Your task to perform on an android device: change the clock display to show seconds Image 0: 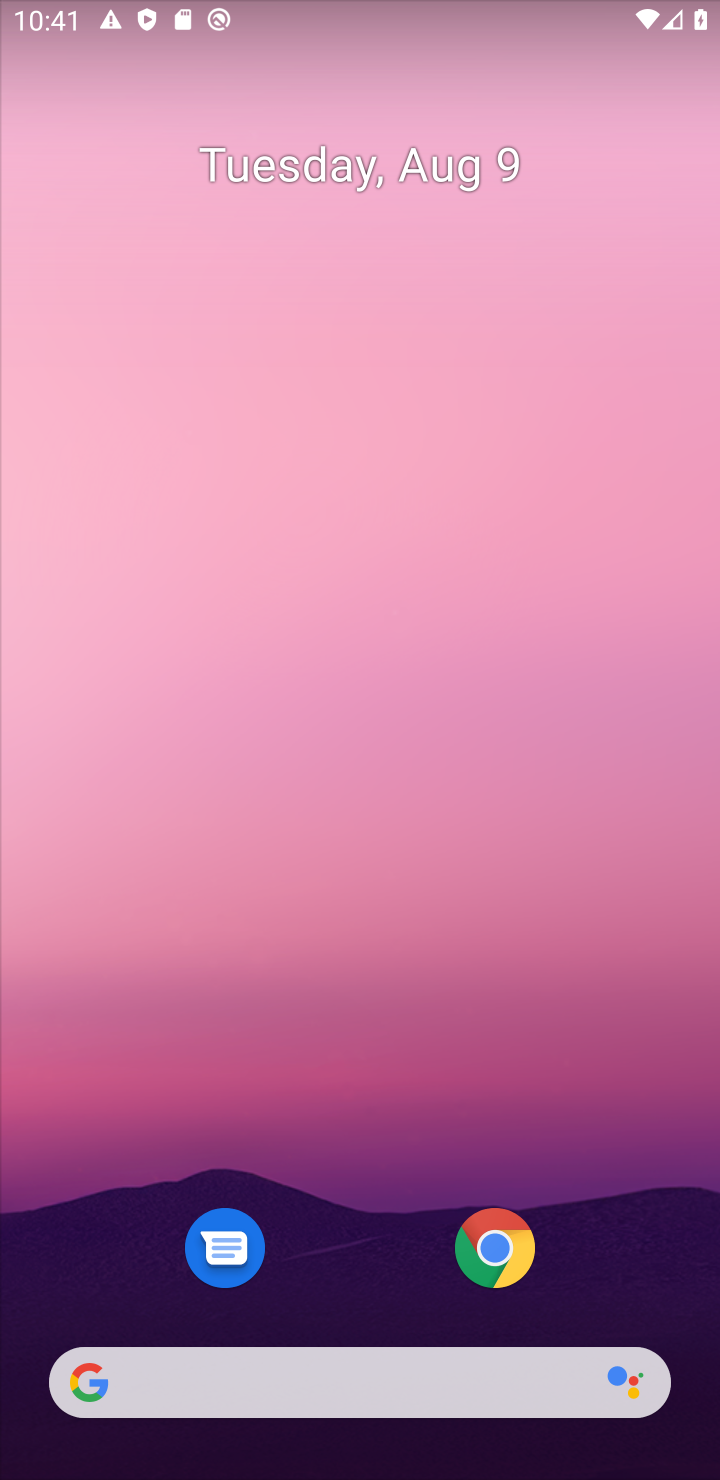
Step 0: drag from (365, 1022) to (440, 224)
Your task to perform on an android device: change the clock display to show seconds Image 1: 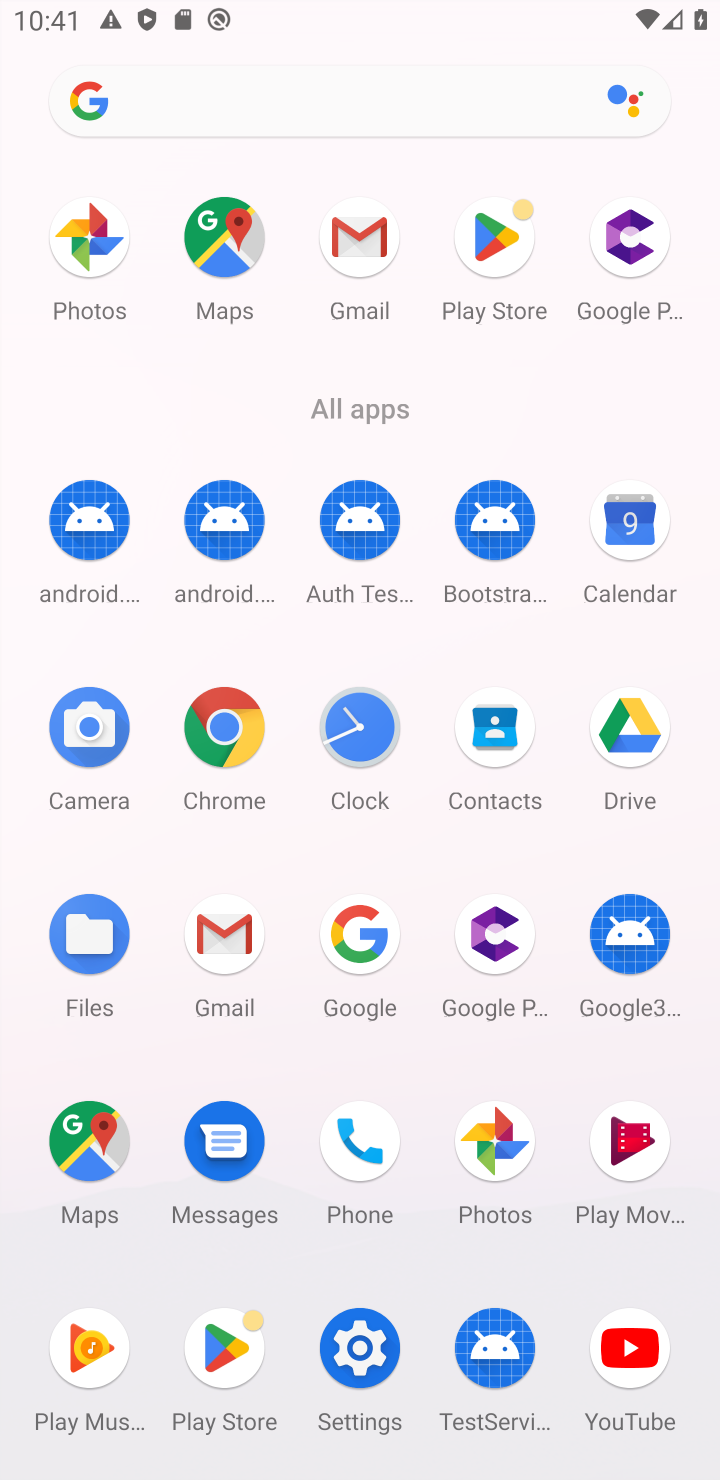
Step 1: click (354, 734)
Your task to perform on an android device: change the clock display to show seconds Image 2: 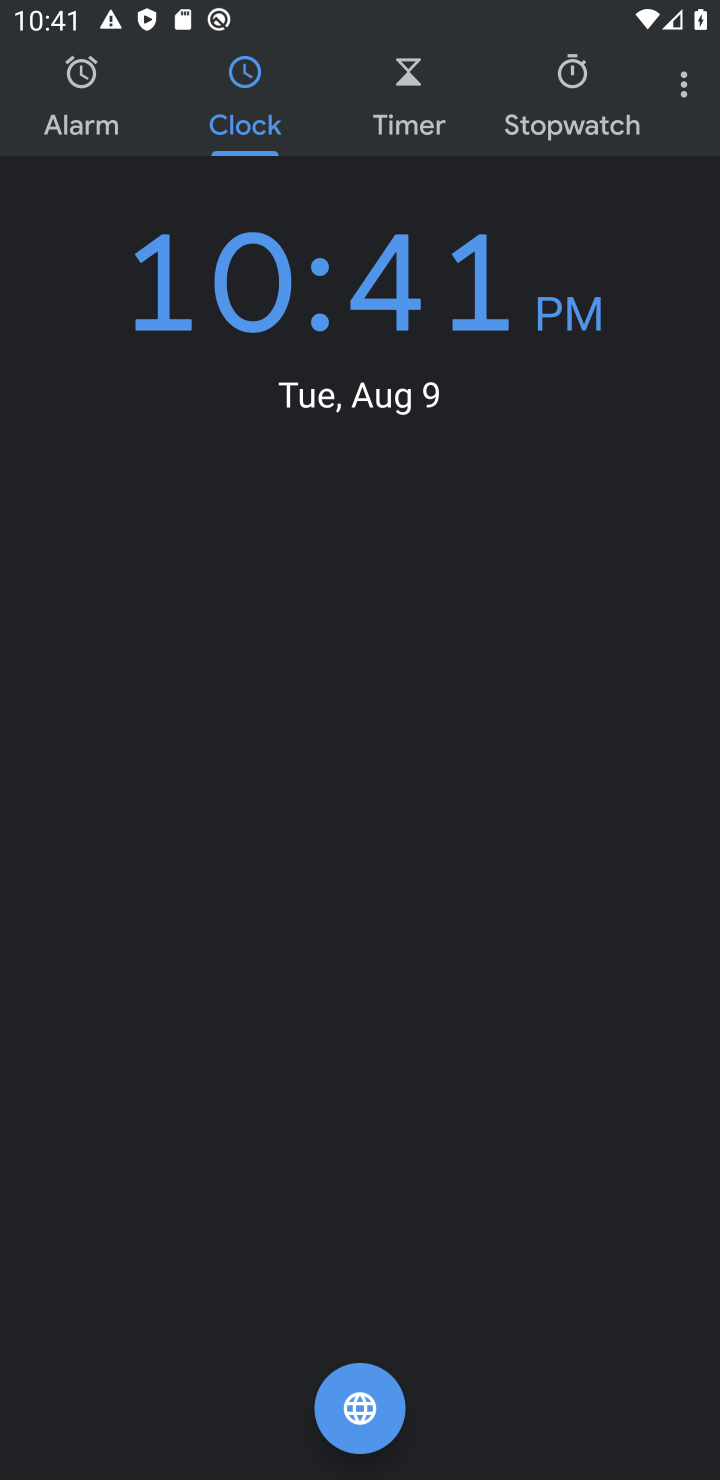
Step 2: task complete